Your task to perform on an android device: Go to wifi settings Image 0: 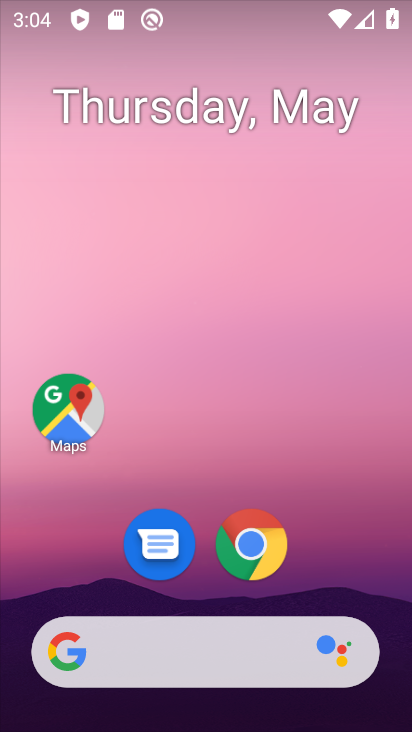
Step 0: drag from (214, 557) to (230, 141)
Your task to perform on an android device: Go to wifi settings Image 1: 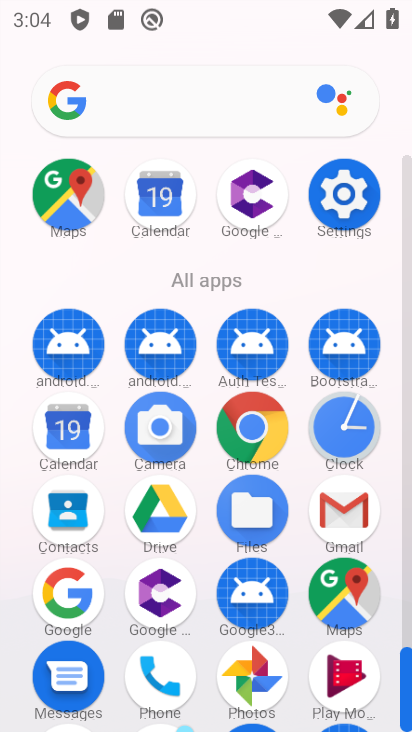
Step 1: click (342, 186)
Your task to perform on an android device: Go to wifi settings Image 2: 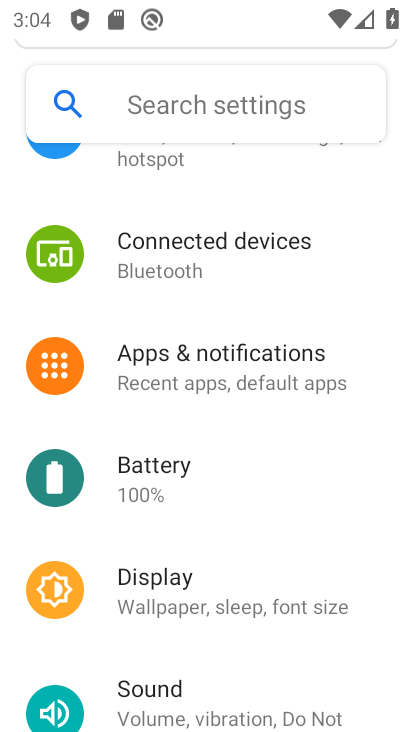
Step 2: drag from (217, 213) to (207, 495)
Your task to perform on an android device: Go to wifi settings Image 3: 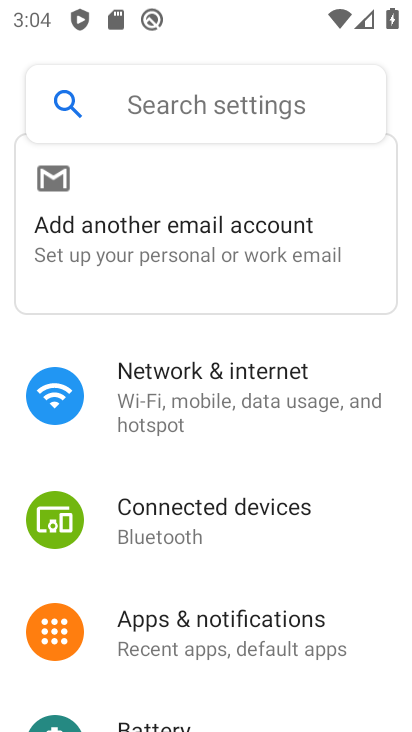
Step 3: click (192, 392)
Your task to perform on an android device: Go to wifi settings Image 4: 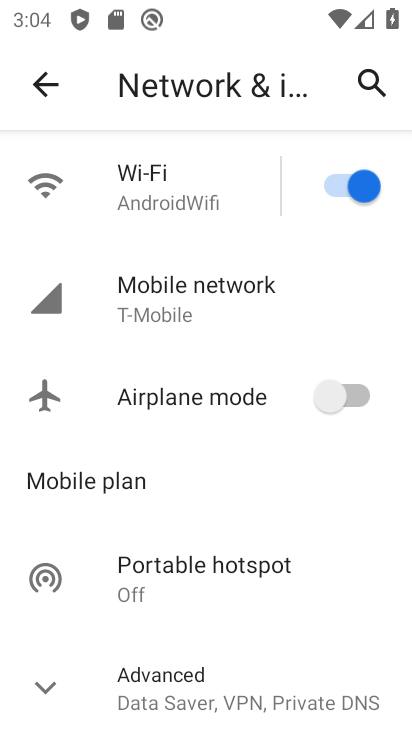
Step 4: click (176, 201)
Your task to perform on an android device: Go to wifi settings Image 5: 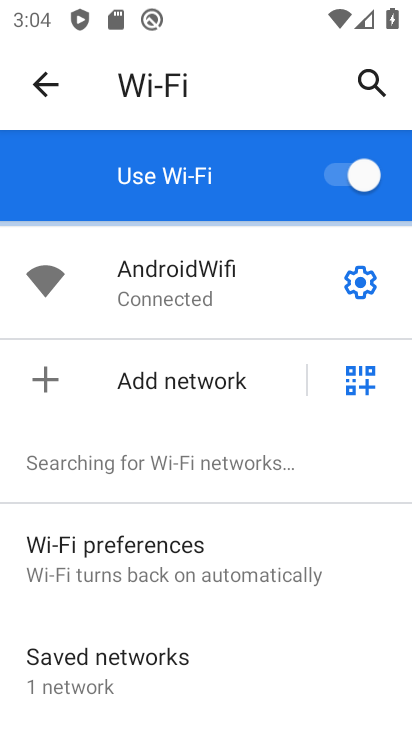
Step 5: task complete